Your task to perform on an android device: turn off improve location accuracy Image 0: 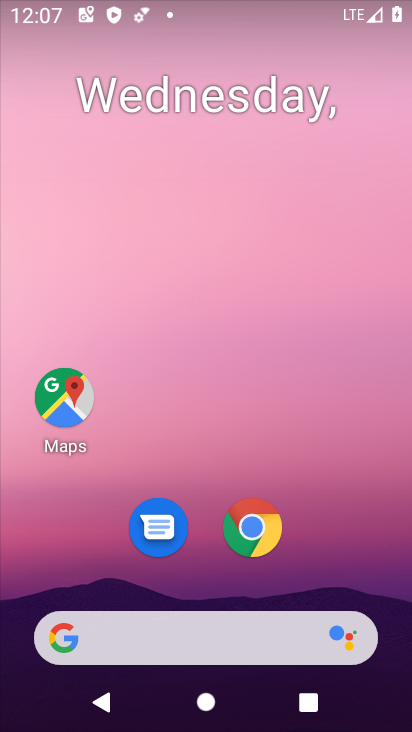
Step 0: drag from (257, 650) to (254, 12)
Your task to perform on an android device: turn off improve location accuracy Image 1: 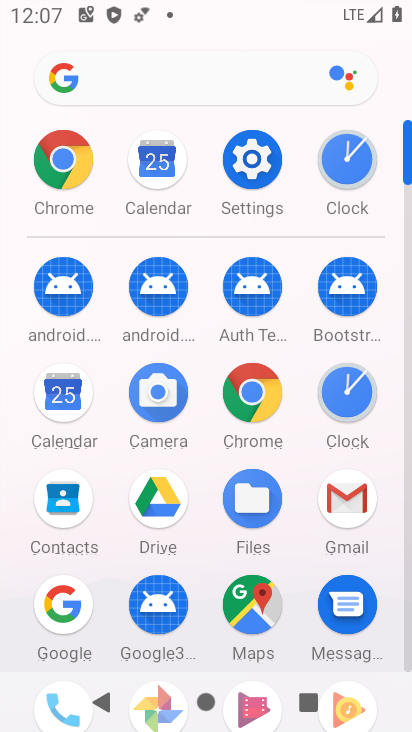
Step 1: drag from (303, 628) to (321, 199)
Your task to perform on an android device: turn off improve location accuracy Image 2: 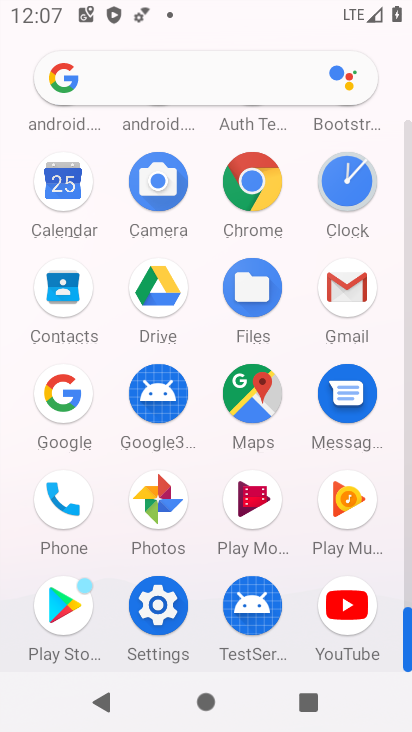
Step 2: click (172, 599)
Your task to perform on an android device: turn off improve location accuracy Image 3: 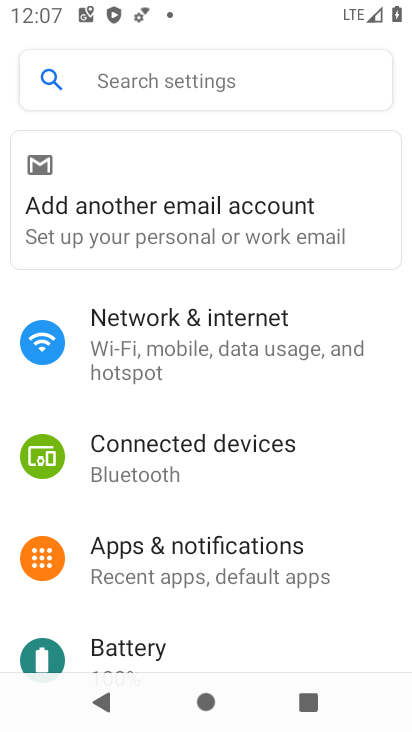
Step 3: drag from (317, 588) to (321, 73)
Your task to perform on an android device: turn off improve location accuracy Image 4: 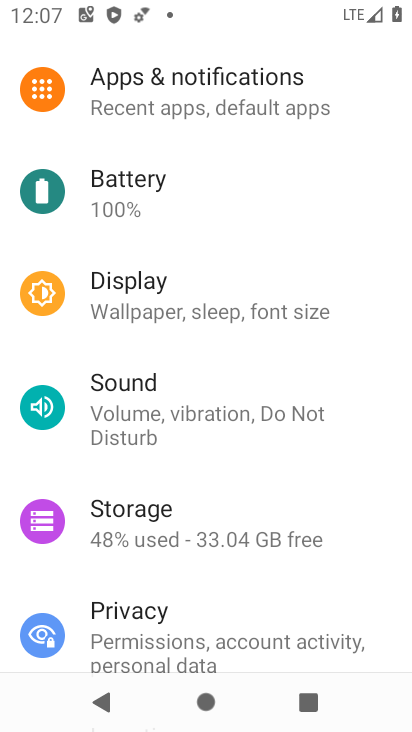
Step 4: drag from (226, 271) to (240, 460)
Your task to perform on an android device: turn off improve location accuracy Image 5: 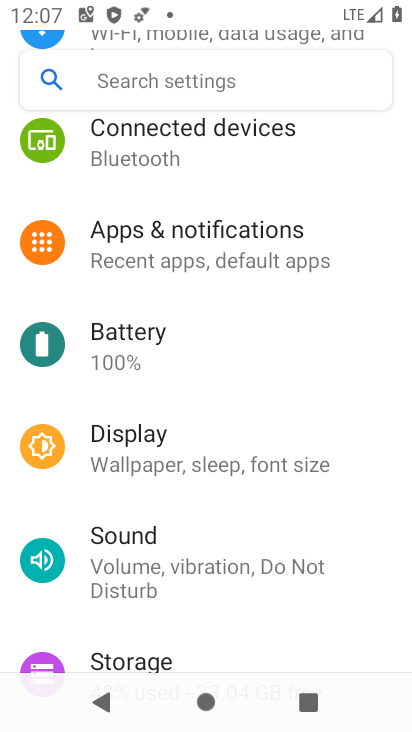
Step 5: drag from (249, 440) to (260, 106)
Your task to perform on an android device: turn off improve location accuracy Image 6: 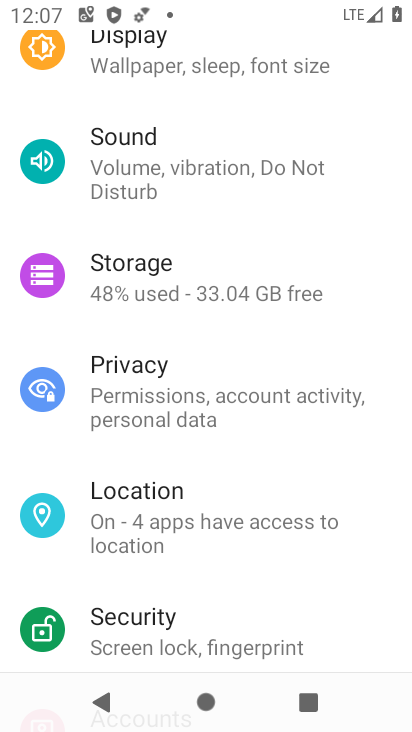
Step 6: click (218, 509)
Your task to perform on an android device: turn off improve location accuracy Image 7: 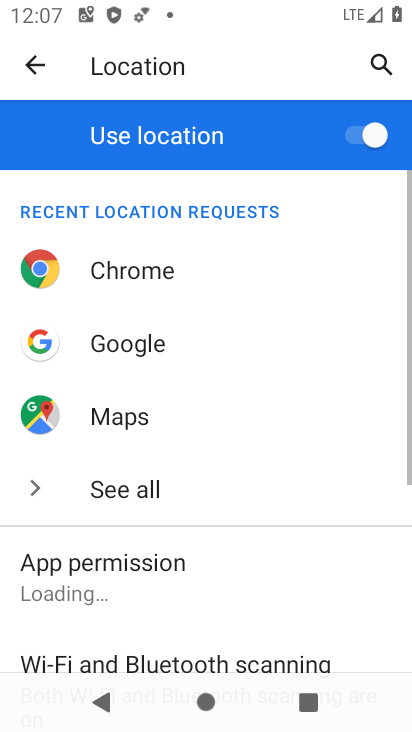
Step 7: drag from (248, 607) to (281, 128)
Your task to perform on an android device: turn off improve location accuracy Image 8: 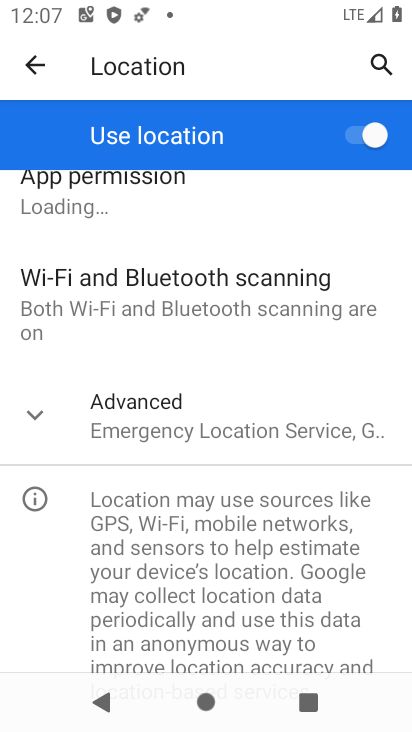
Step 8: click (302, 421)
Your task to perform on an android device: turn off improve location accuracy Image 9: 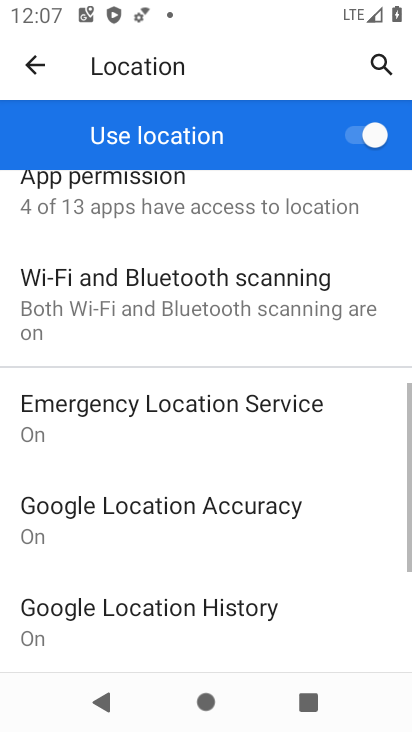
Step 9: click (265, 513)
Your task to perform on an android device: turn off improve location accuracy Image 10: 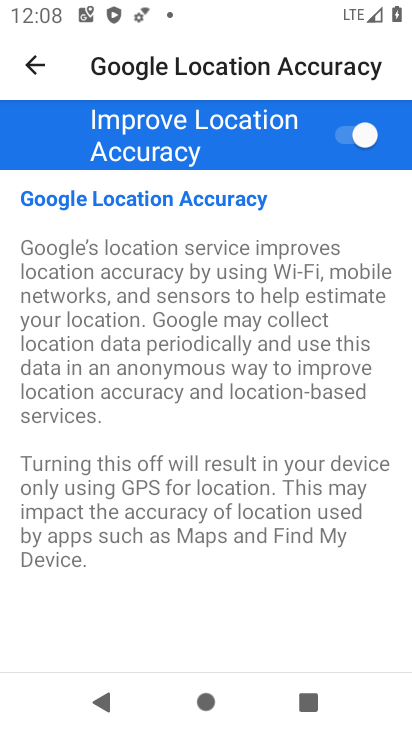
Step 10: click (354, 128)
Your task to perform on an android device: turn off improve location accuracy Image 11: 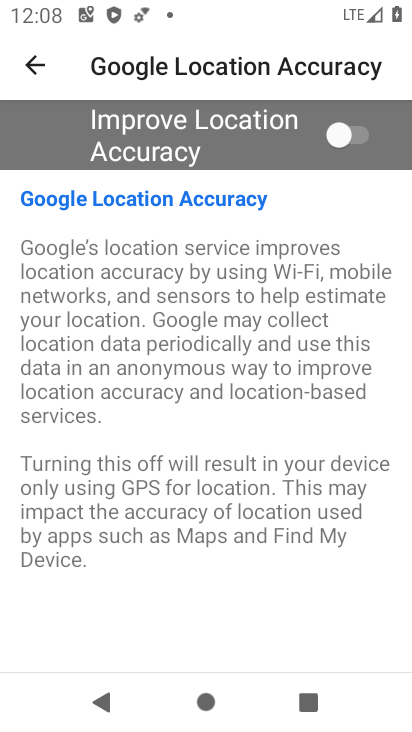
Step 11: task complete